Your task to perform on an android device: turn on translation in the chrome app Image 0: 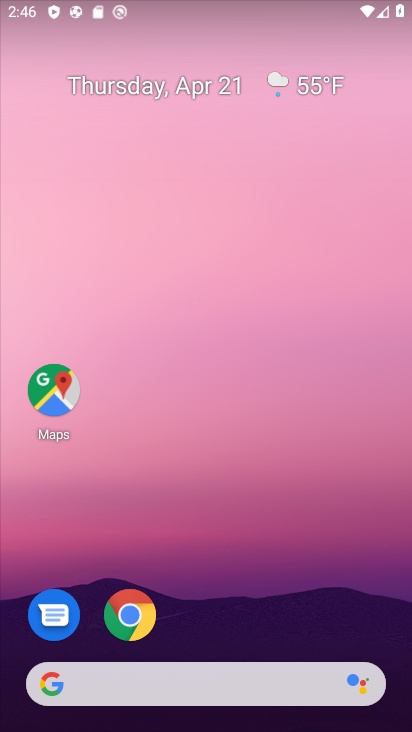
Step 0: press home button
Your task to perform on an android device: turn on translation in the chrome app Image 1: 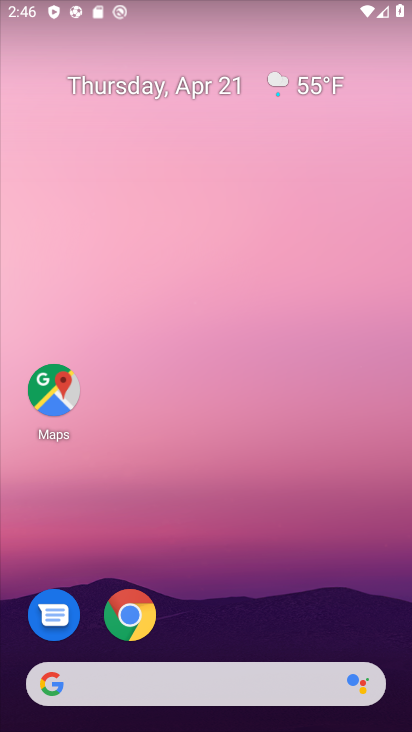
Step 1: drag from (141, 686) to (285, 96)
Your task to perform on an android device: turn on translation in the chrome app Image 2: 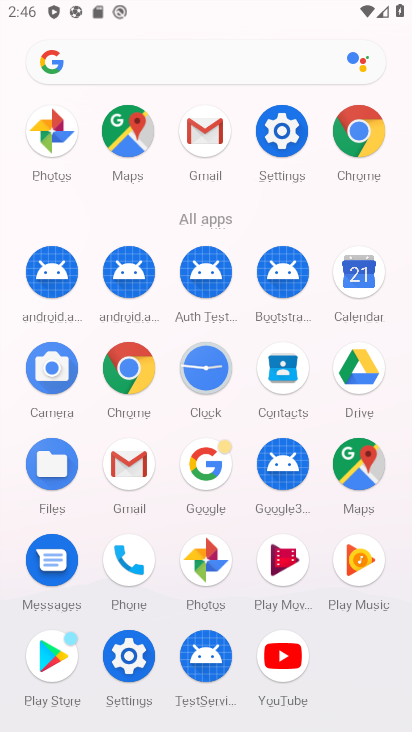
Step 2: click (360, 140)
Your task to perform on an android device: turn on translation in the chrome app Image 3: 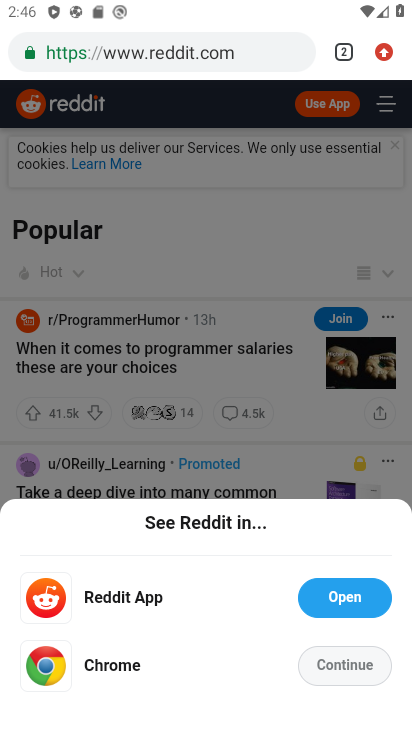
Step 3: click (375, 58)
Your task to perform on an android device: turn on translation in the chrome app Image 4: 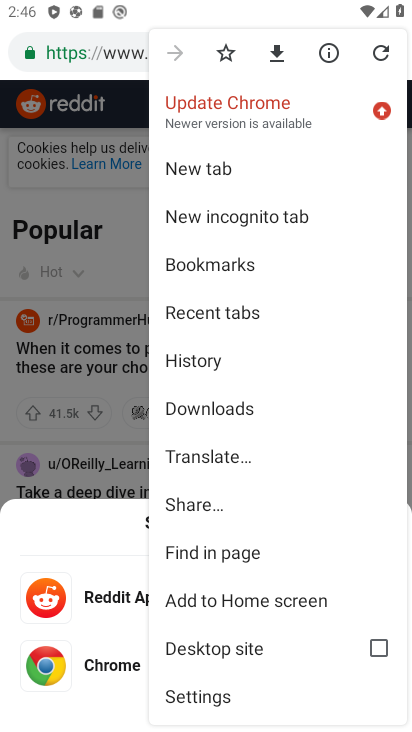
Step 4: click (206, 698)
Your task to perform on an android device: turn on translation in the chrome app Image 5: 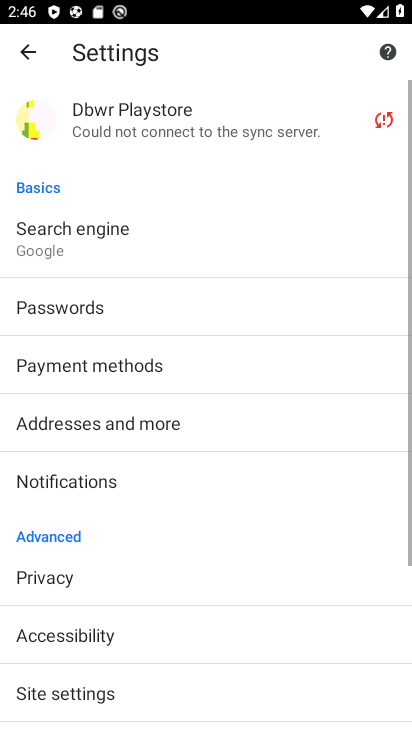
Step 5: drag from (193, 647) to (352, 173)
Your task to perform on an android device: turn on translation in the chrome app Image 6: 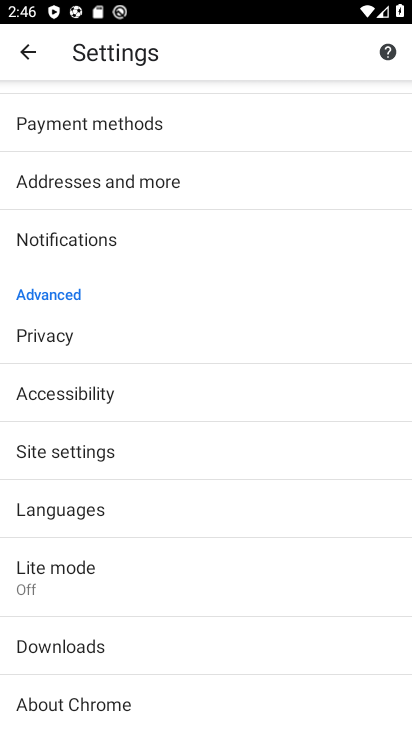
Step 6: click (73, 508)
Your task to perform on an android device: turn on translation in the chrome app Image 7: 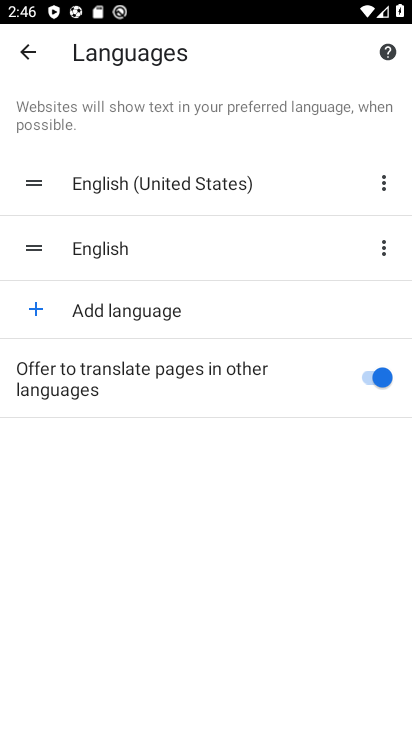
Step 7: task complete